Your task to perform on an android device: turn smart compose on in the gmail app Image 0: 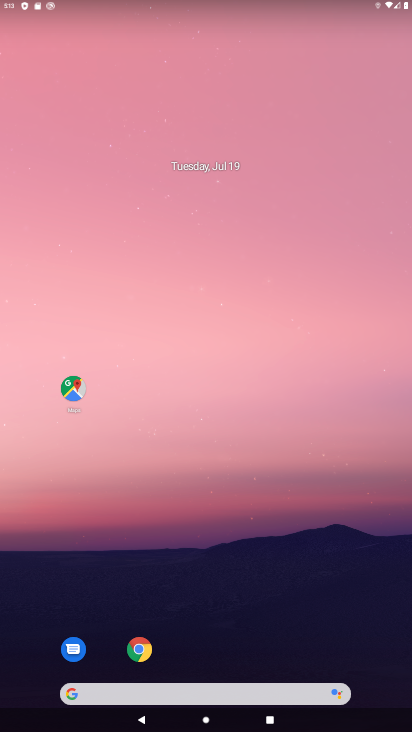
Step 0: drag from (257, 507) to (233, 56)
Your task to perform on an android device: turn smart compose on in the gmail app Image 1: 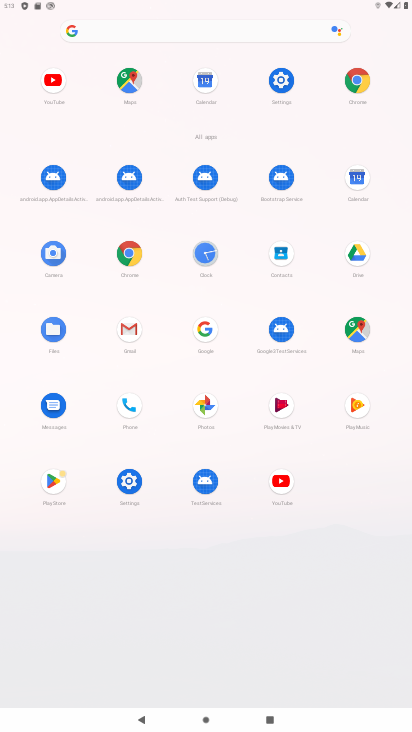
Step 1: click (126, 328)
Your task to perform on an android device: turn smart compose on in the gmail app Image 2: 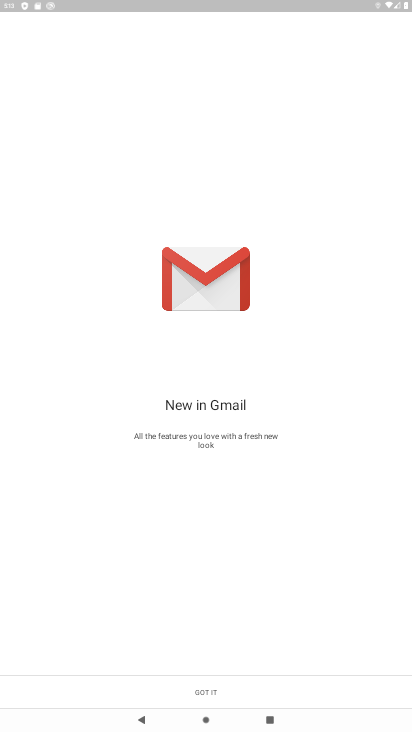
Step 2: click (211, 693)
Your task to perform on an android device: turn smart compose on in the gmail app Image 3: 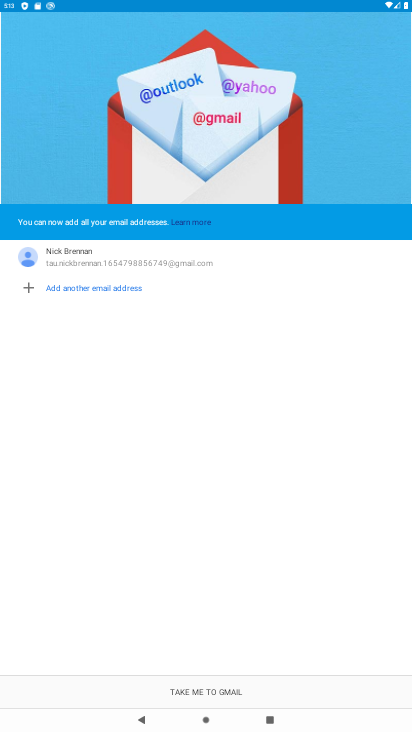
Step 3: click (228, 686)
Your task to perform on an android device: turn smart compose on in the gmail app Image 4: 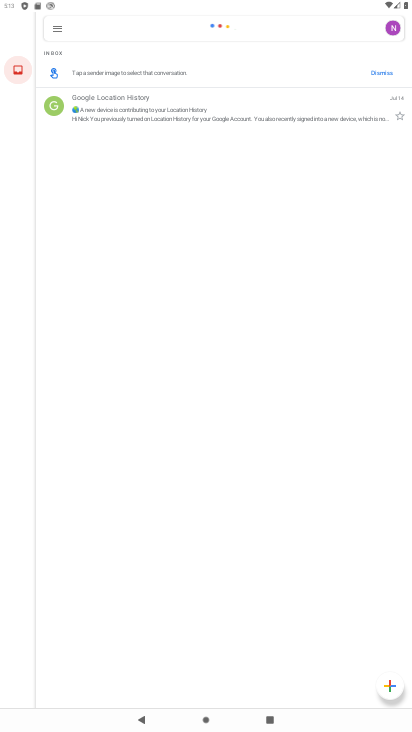
Step 4: click (62, 36)
Your task to perform on an android device: turn smart compose on in the gmail app Image 5: 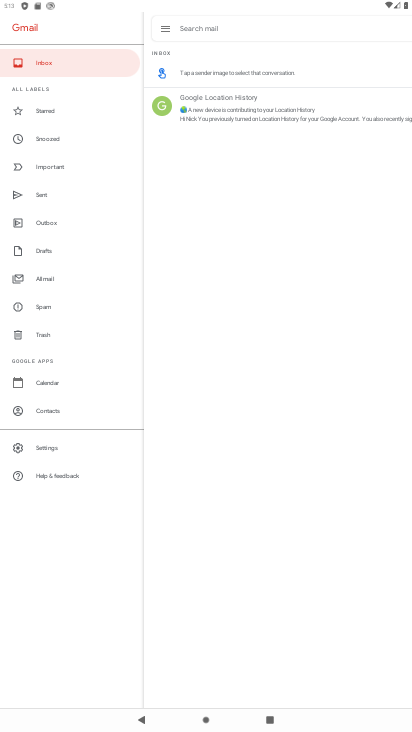
Step 5: click (52, 448)
Your task to perform on an android device: turn smart compose on in the gmail app Image 6: 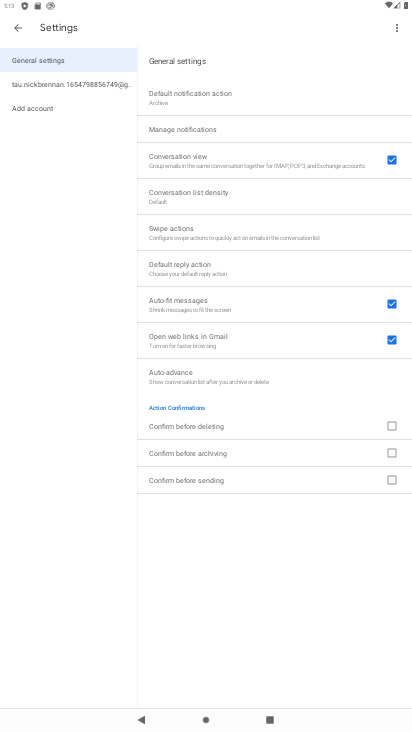
Step 6: click (77, 94)
Your task to perform on an android device: turn smart compose on in the gmail app Image 7: 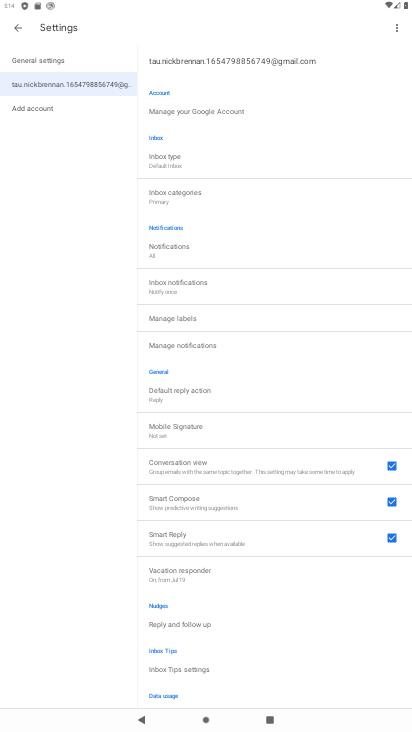
Step 7: task complete